Your task to perform on an android device: turn on wifi Image 0: 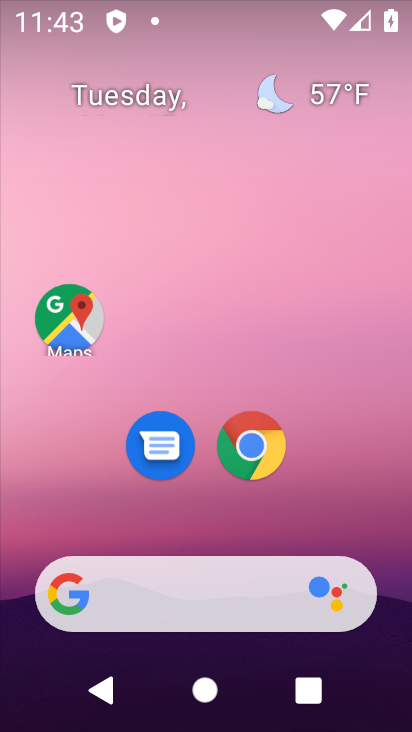
Step 0: drag from (307, 8) to (285, 398)
Your task to perform on an android device: turn on wifi Image 1: 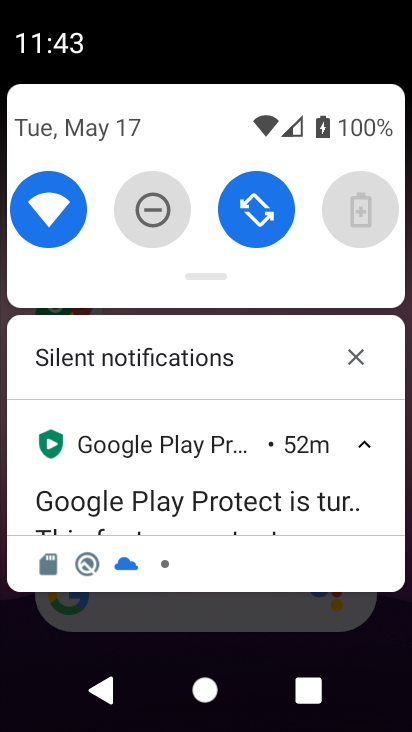
Step 1: drag from (210, 125) to (181, 447)
Your task to perform on an android device: turn on wifi Image 2: 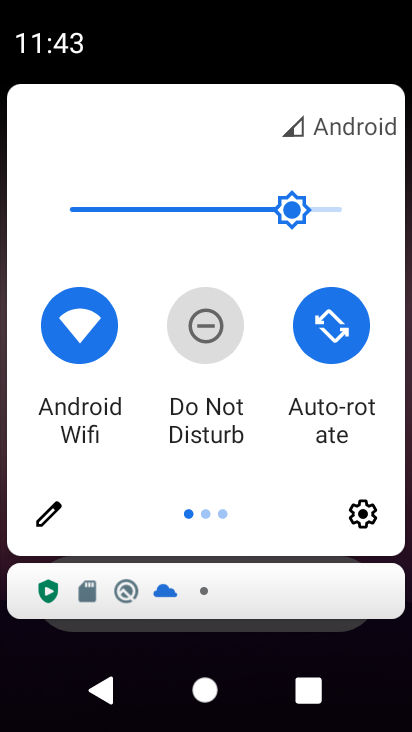
Step 2: click (47, 515)
Your task to perform on an android device: turn on wifi Image 3: 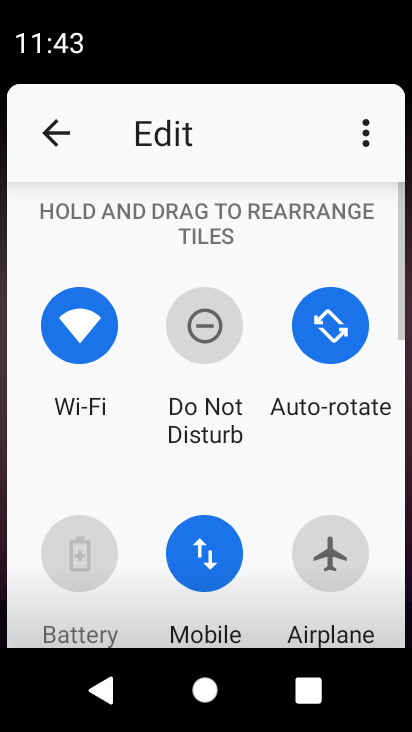
Step 3: task complete